Your task to perform on an android device: toggle sleep mode Image 0: 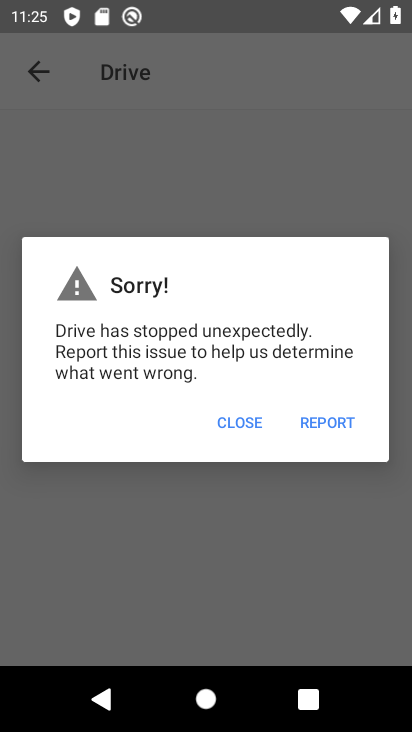
Step 0: press home button
Your task to perform on an android device: toggle sleep mode Image 1: 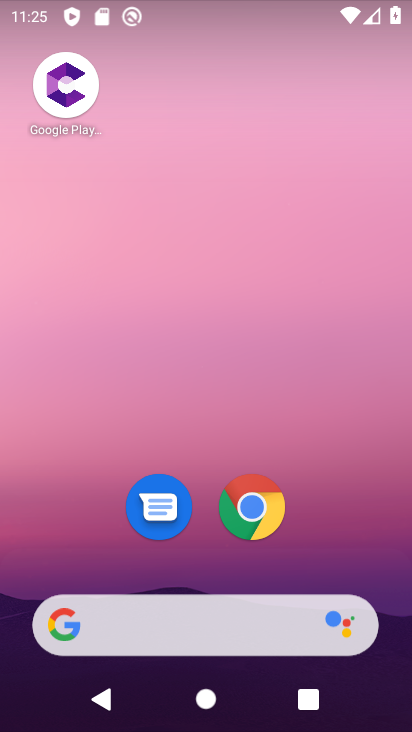
Step 1: drag from (354, 550) to (326, 111)
Your task to perform on an android device: toggle sleep mode Image 2: 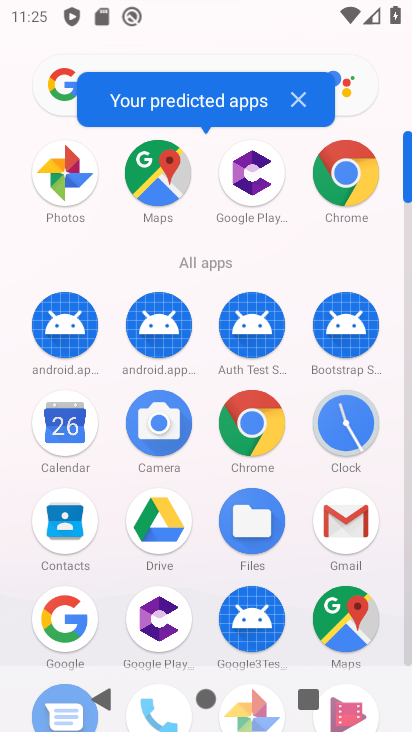
Step 2: drag from (297, 568) to (309, 262)
Your task to perform on an android device: toggle sleep mode Image 3: 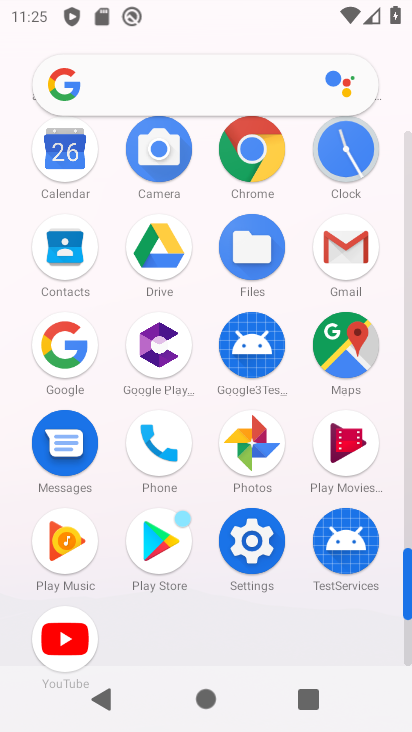
Step 3: click (250, 544)
Your task to perform on an android device: toggle sleep mode Image 4: 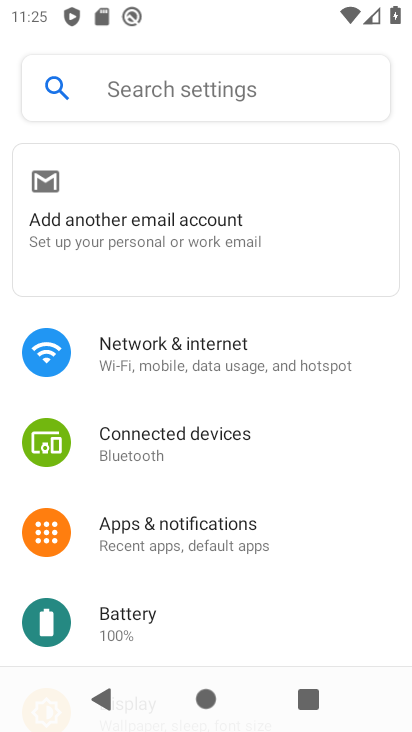
Step 4: drag from (262, 558) to (289, 269)
Your task to perform on an android device: toggle sleep mode Image 5: 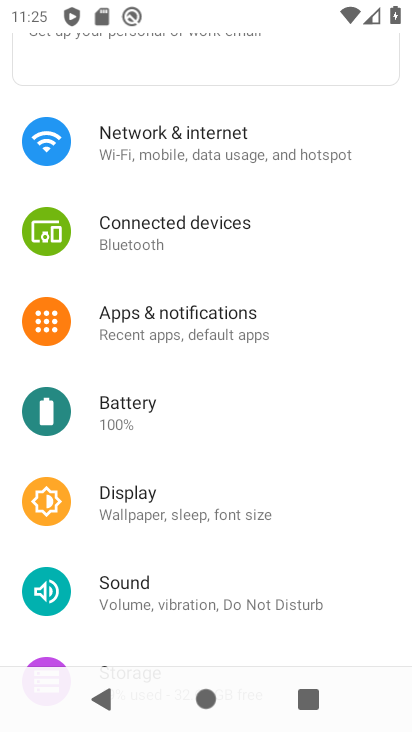
Step 5: drag from (259, 546) to (240, 401)
Your task to perform on an android device: toggle sleep mode Image 6: 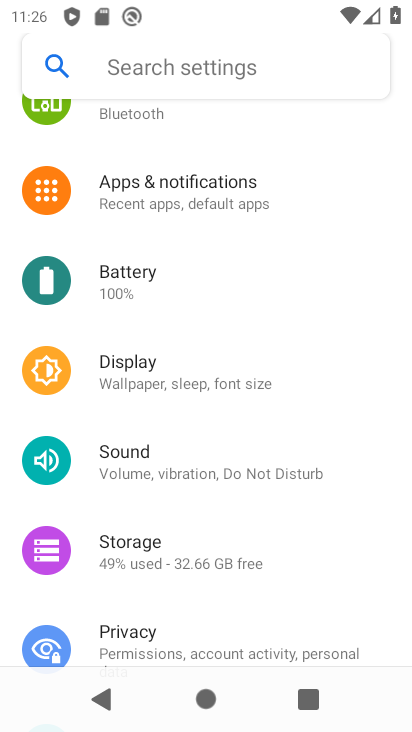
Step 6: click (151, 399)
Your task to perform on an android device: toggle sleep mode Image 7: 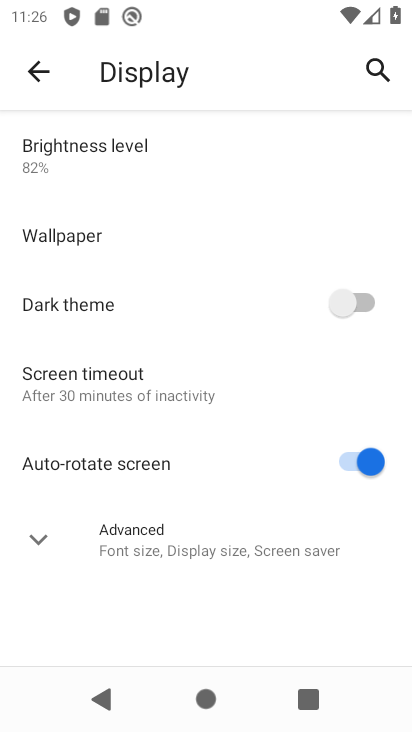
Step 7: click (151, 391)
Your task to perform on an android device: toggle sleep mode Image 8: 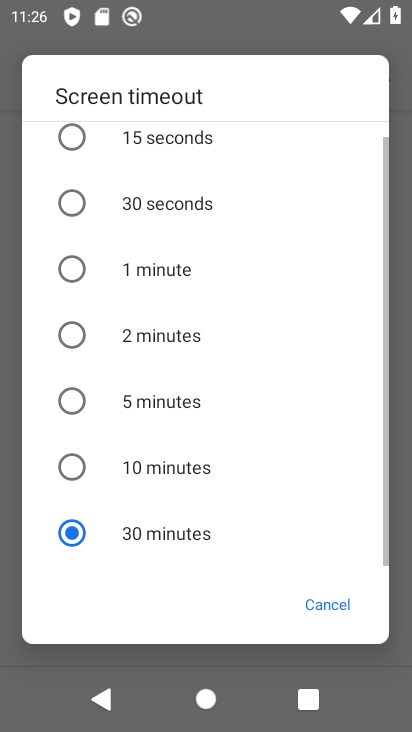
Step 8: click (163, 472)
Your task to perform on an android device: toggle sleep mode Image 9: 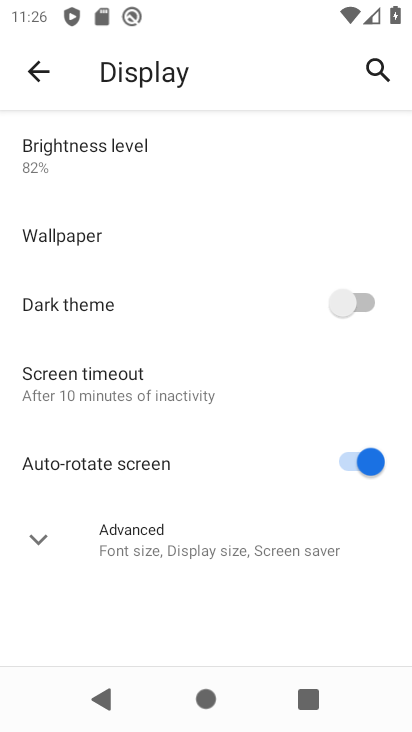
Step 9: task complete